Your task to perform on an android device: Open Yahoo.com Image 0: 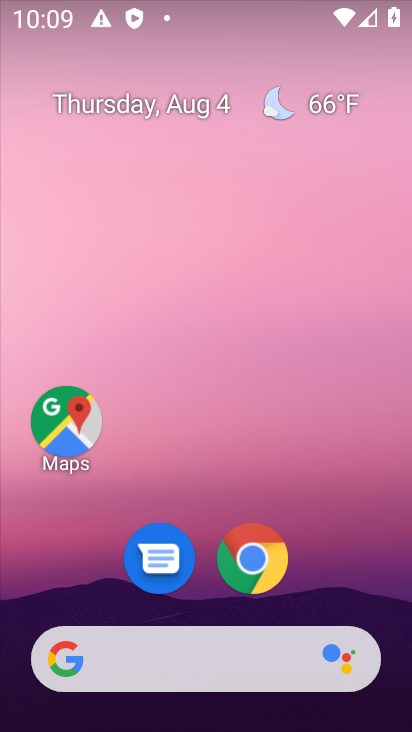
Step 0: drag from (330, 561) to (281, 185)
Your task to perform on an android device: Open Yahoo.com Image 1: 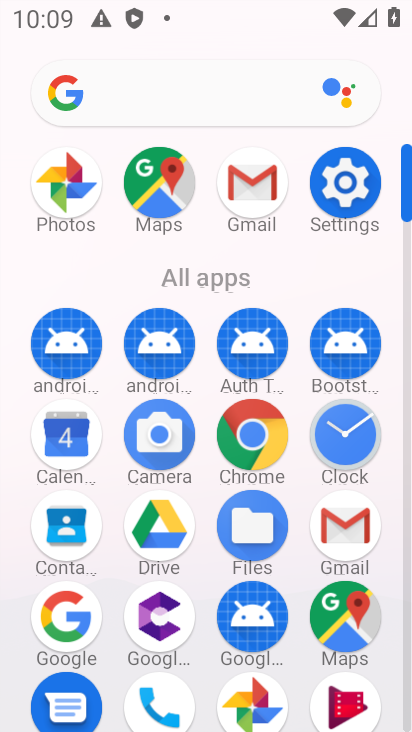
Step 1: click (258, 431)
Your task to perform on an android device: Open Yahoo.com Image 2: 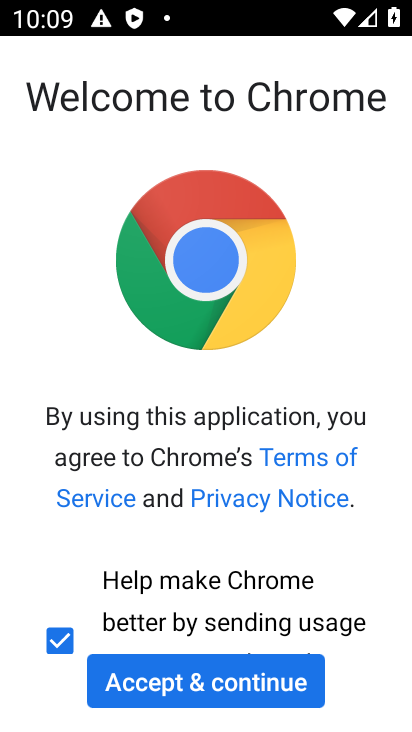
Step 2: click (216, 663)
Your task to perform on an android device: Open Yahoo.com Image 3: 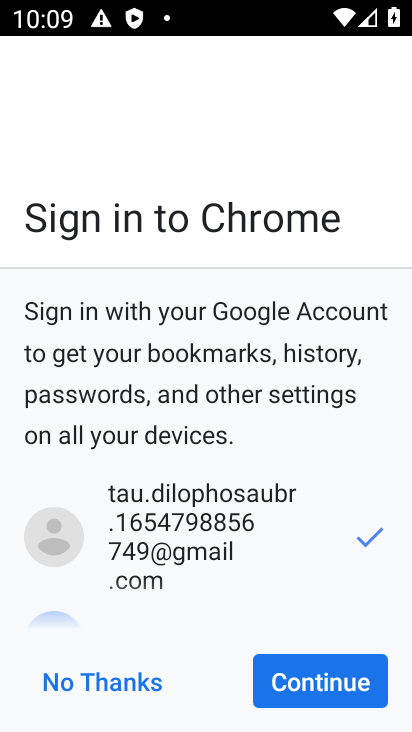
Step 3: click (297, 670)
Your task to perform on an android device: Open Yahoo.com Image 4: 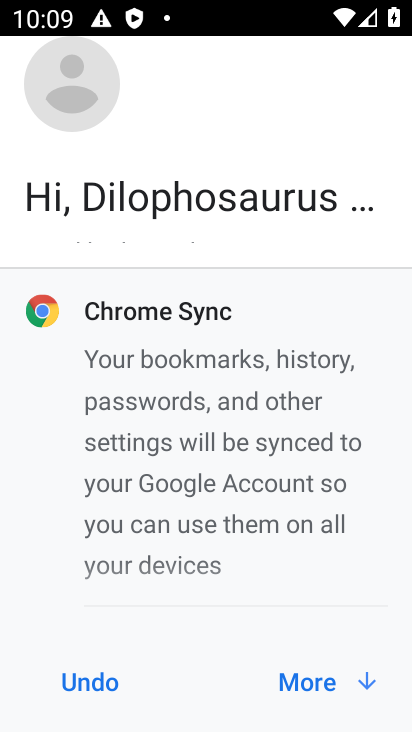
Step 4: click (297, 670)
Your task to perform on an android device: Open Yahoo.com Image 5: 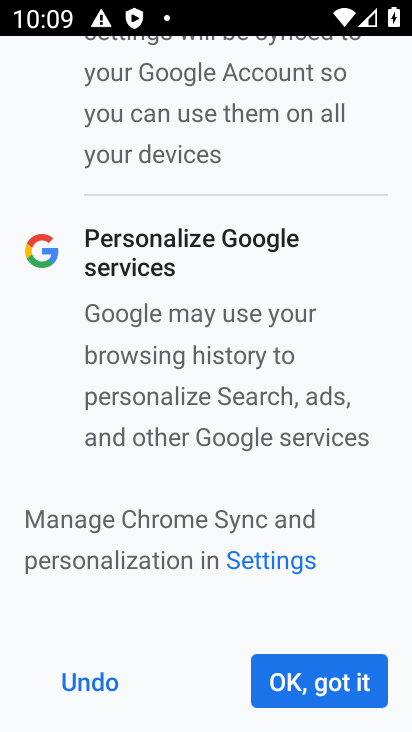
Step 5: click (297, 670)
Your task to perform on an android device: Open Yahoo.com Image 6: 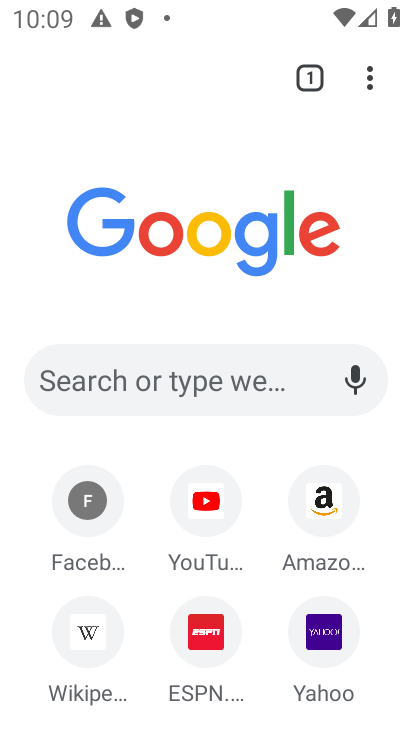
Step 6: click (340, 640)
Your task to perform on an android device: Open Yahoo.com Image 7: 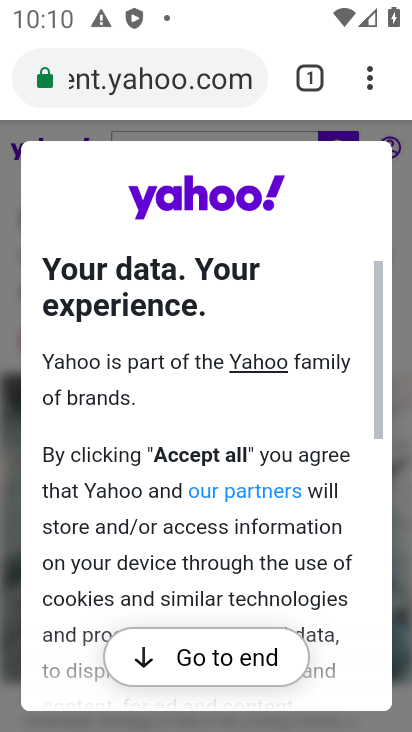
Step 7: task complete